Your task to perform on an android device: add a contact Image 0: 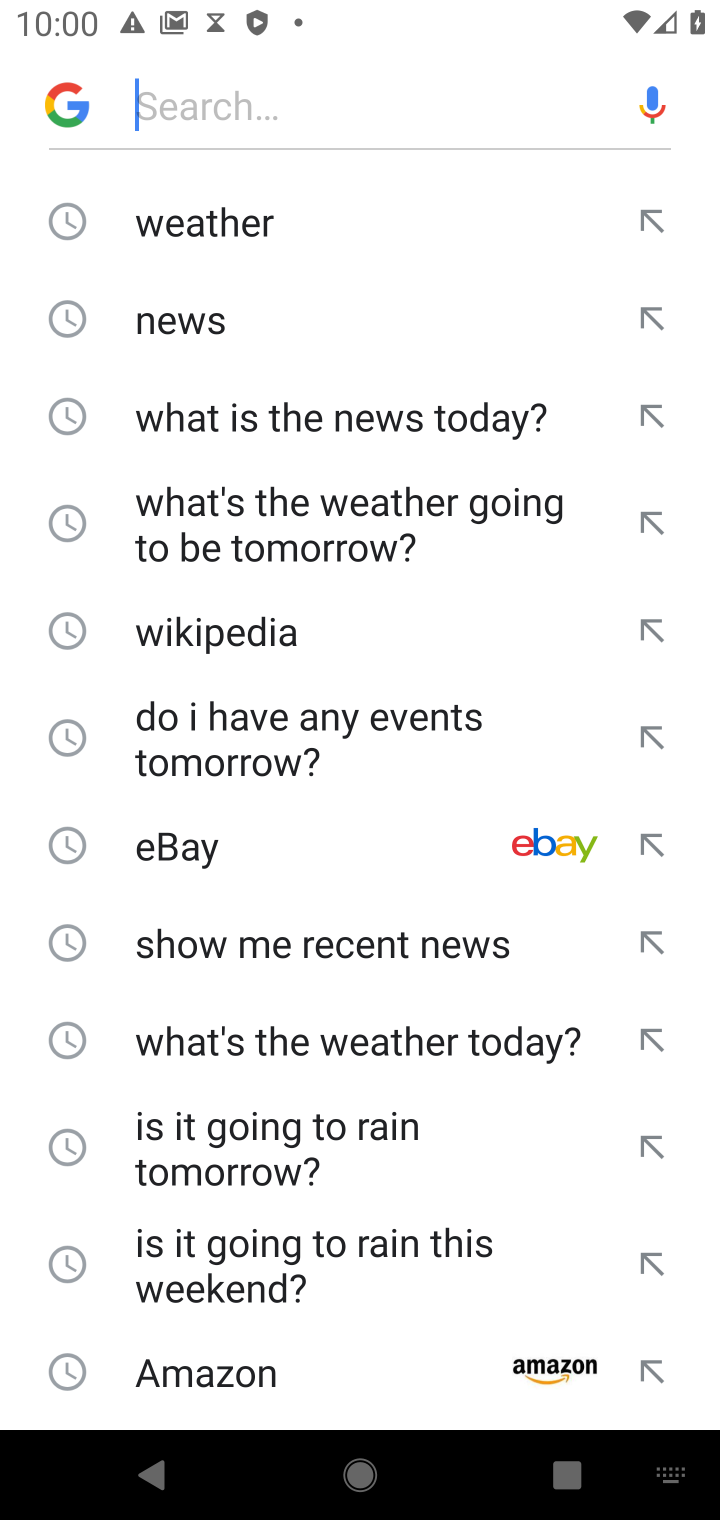
Step 0: press back button
Your task to perform on an android device: add a contact Image 1: 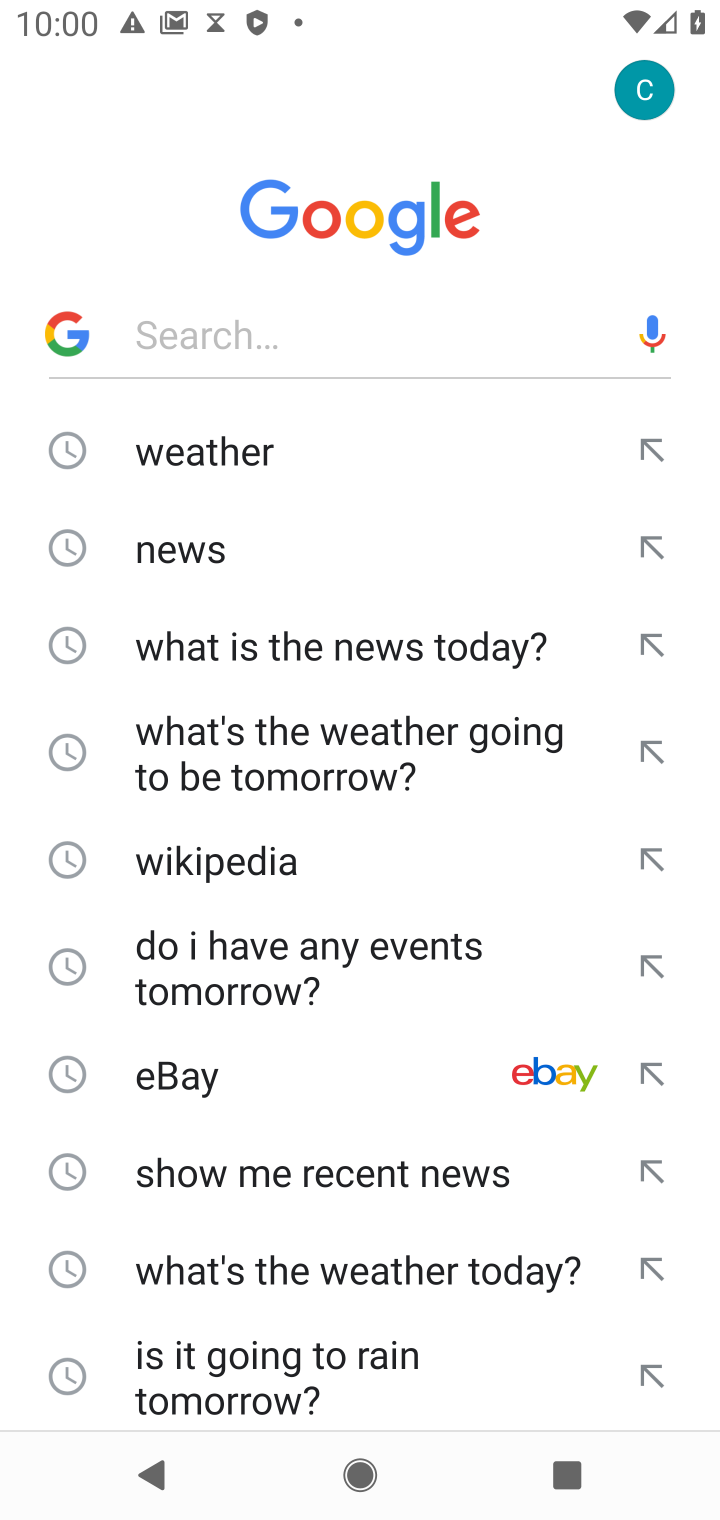
Step 1: press home button
Your task to perform on an android device: add a contact Image 2: 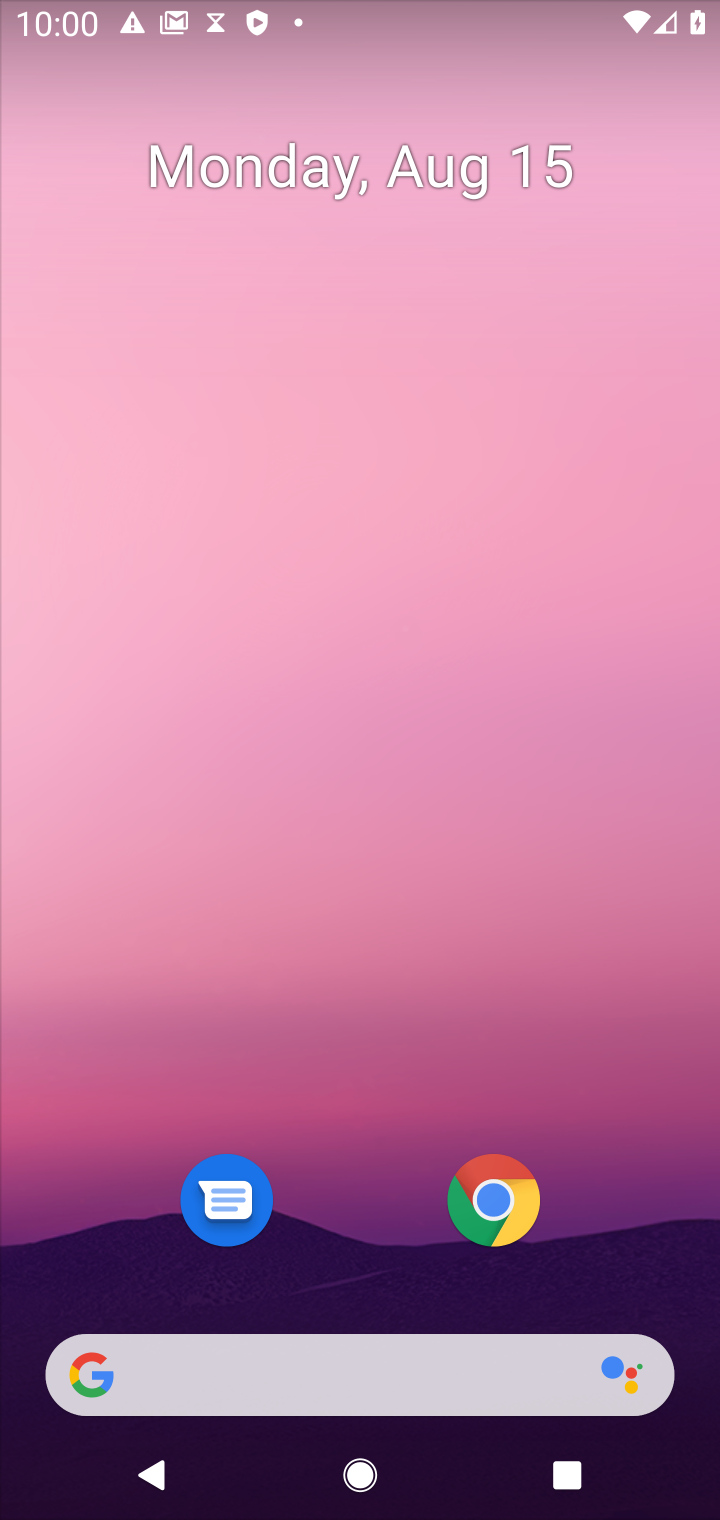
Step 2: drag from (345, 1232) to (345, 364)
Your task to perform on an android device: add a contact Image 3: 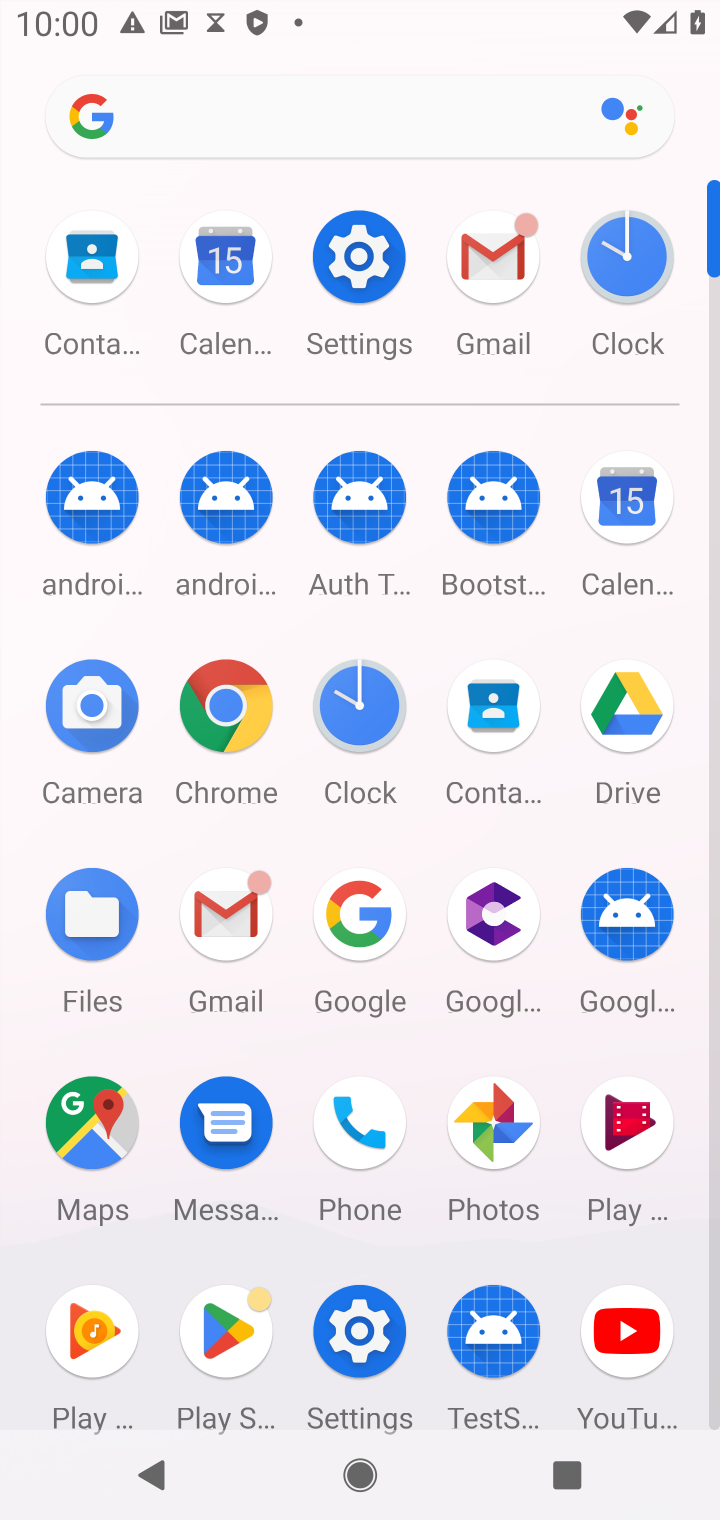
Step 3: click (490, 753)
Your task to perform on an android device: add a contact Image 4: 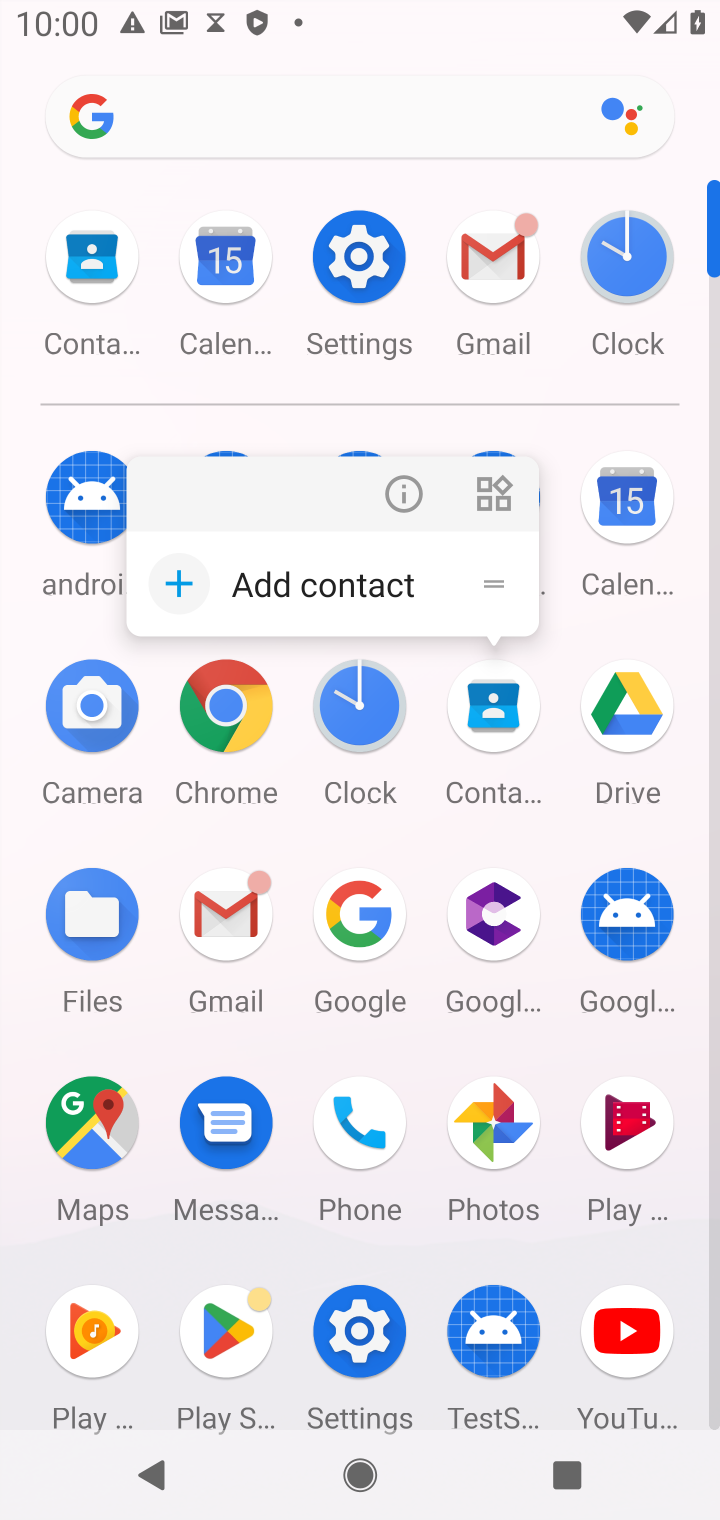
Step 4: click (490, 753)
Your task to perform on an android device: add a contact Image 5: 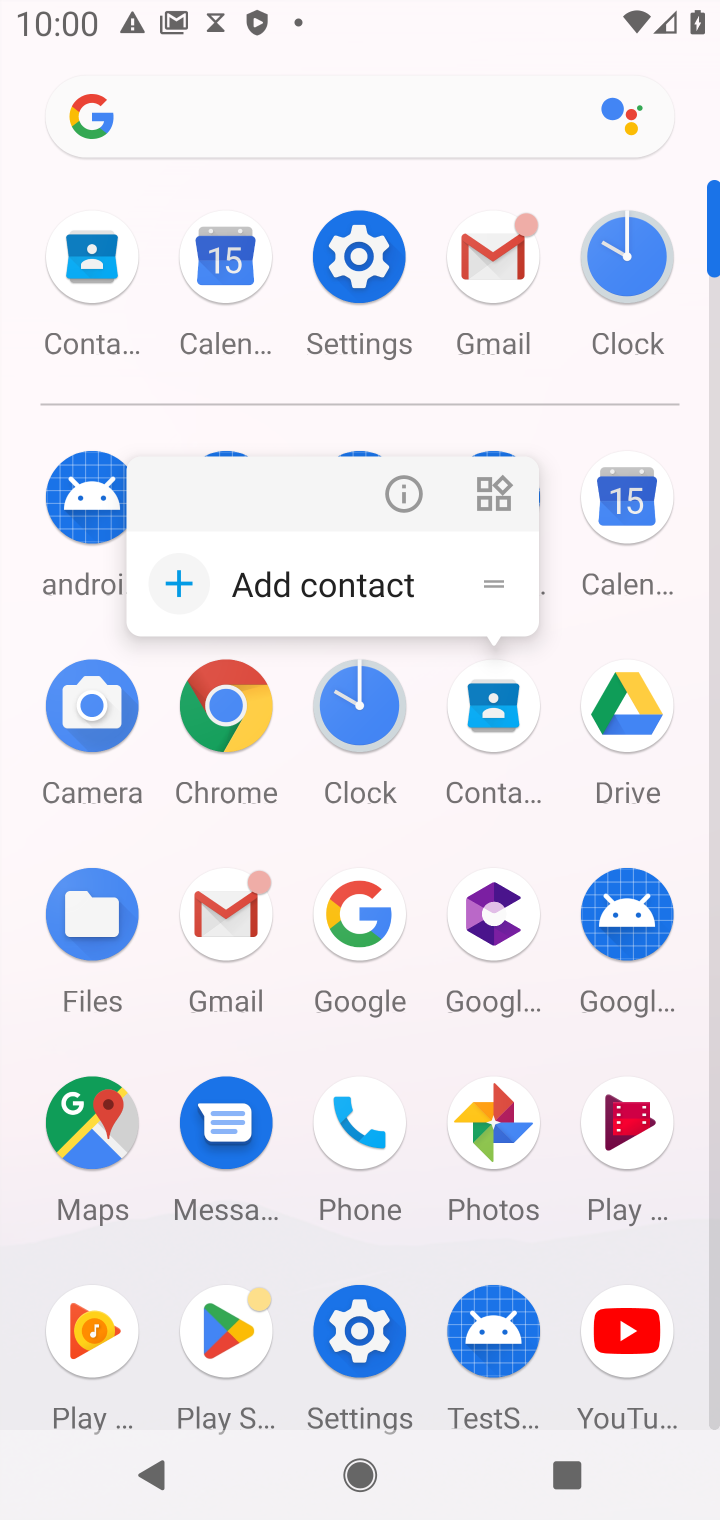
Step 5: click (490, 753)
Your task to perform on an android device: add a contact Image 6: 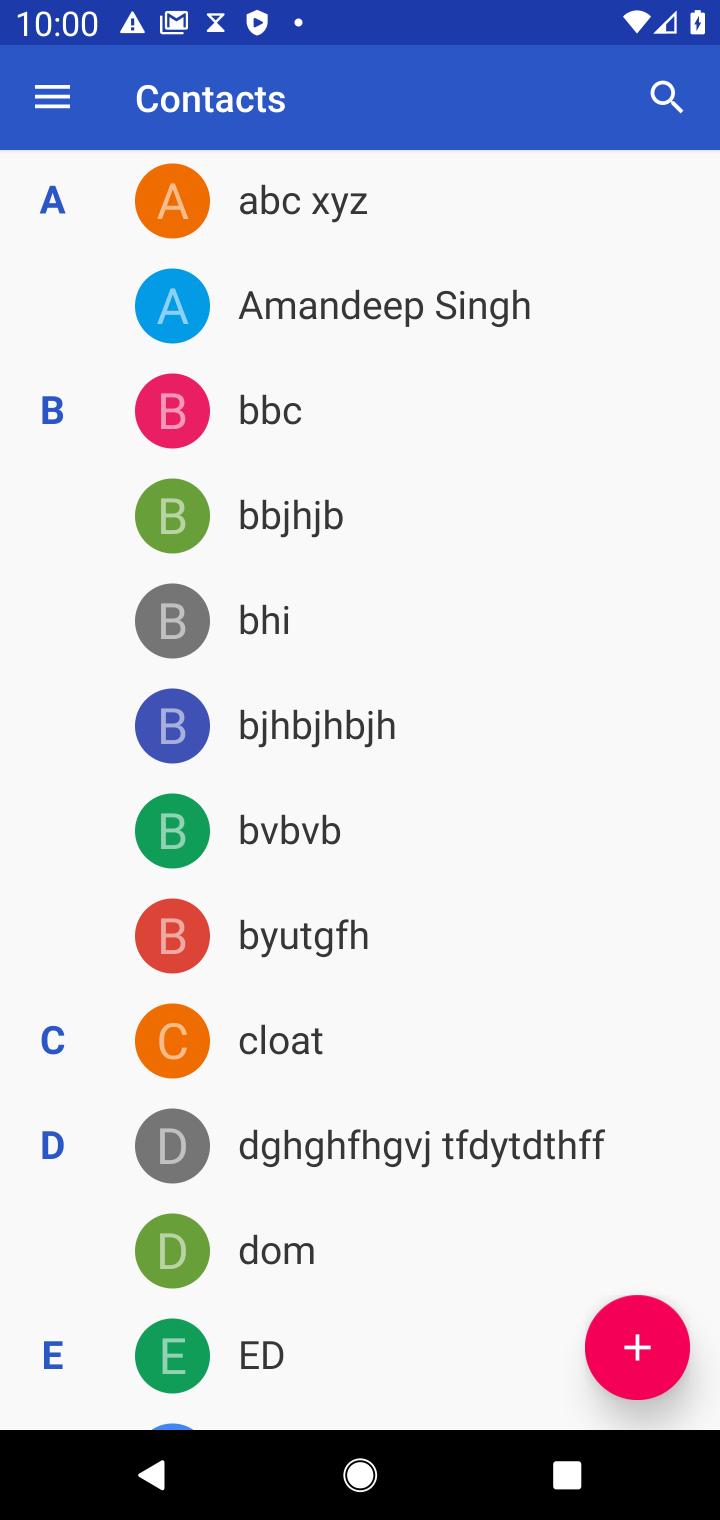
Step 6: click (620, 1356)
Your task to perform on an android device: add a contact Image 7: 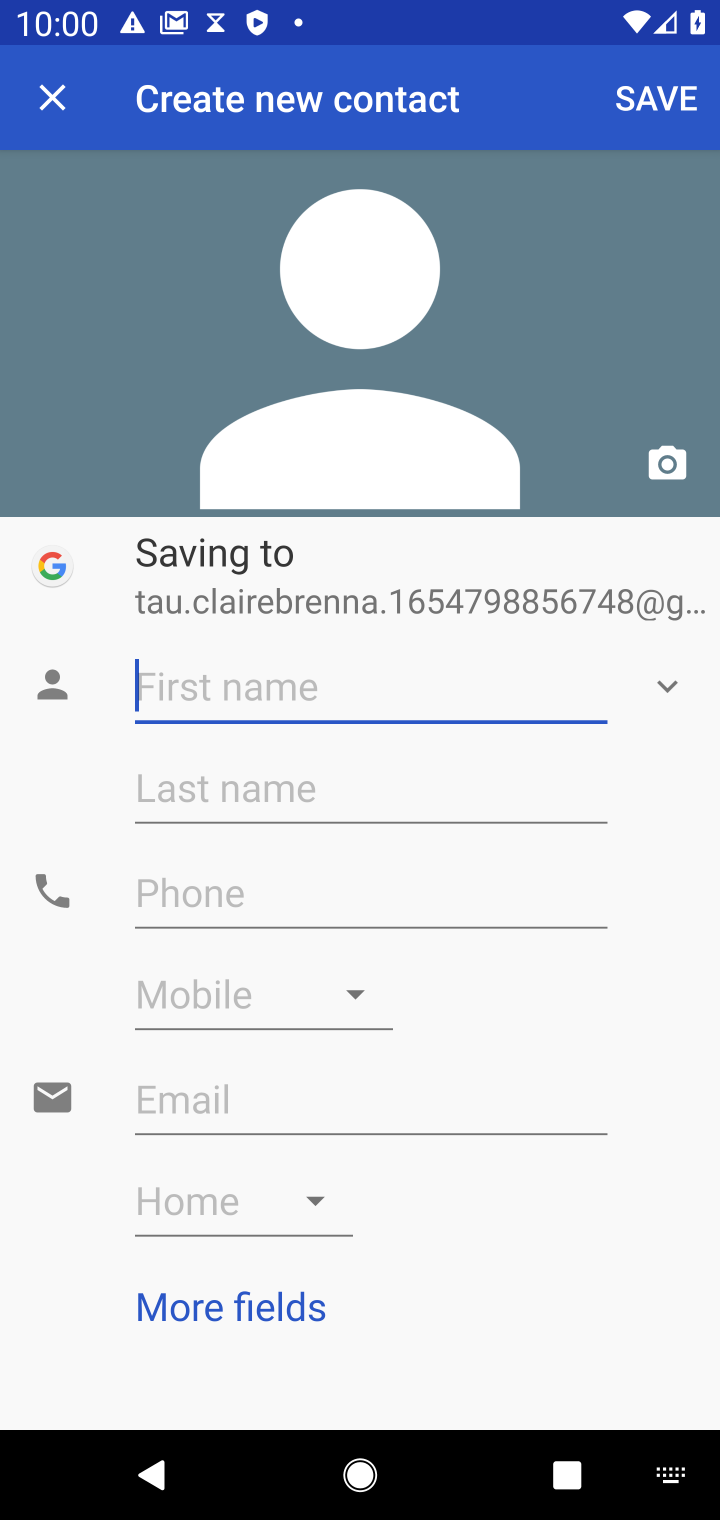
Step 7: type "gfdgff"
Your task to perform on an android device: add a contact Image 8: 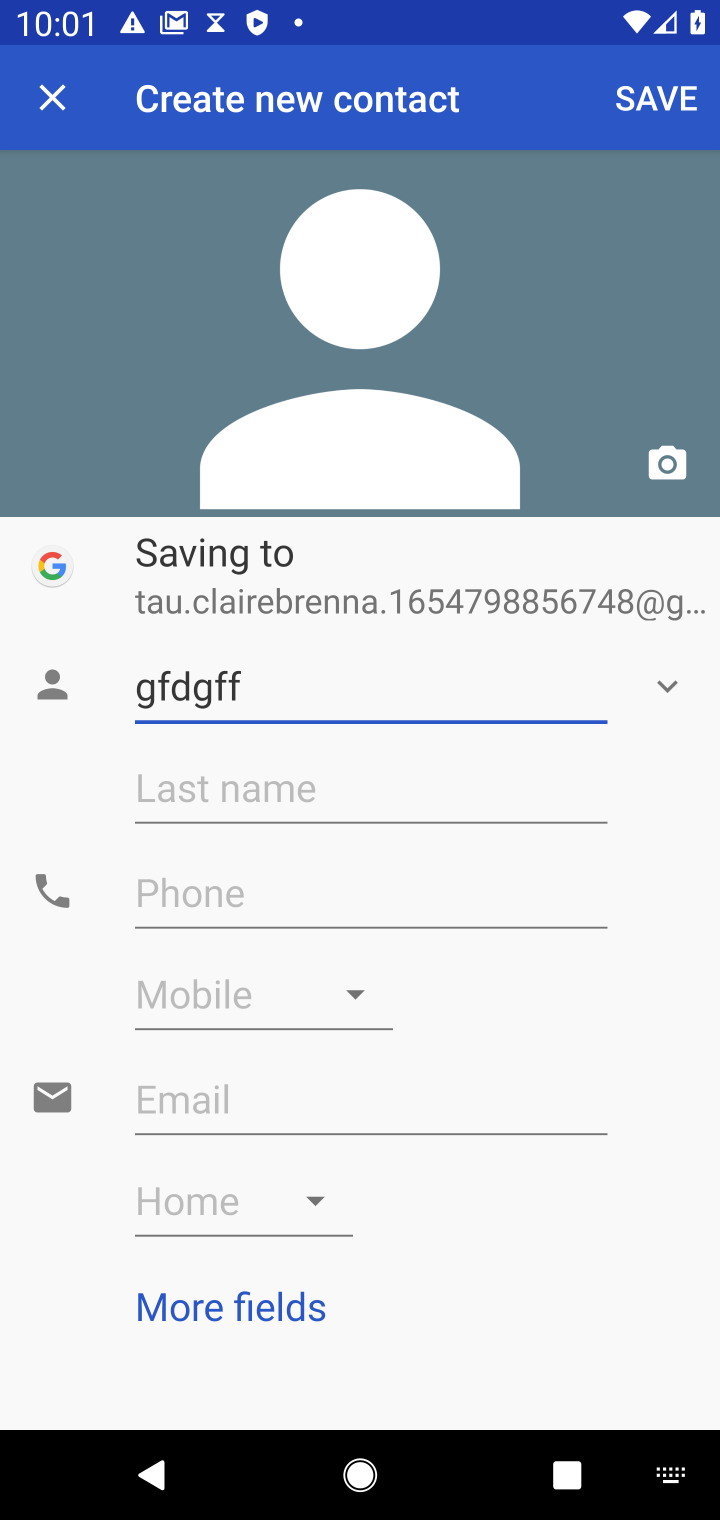
Step 8: click (191, 893)
Your task to perform on an android device: add a contact Image 9: 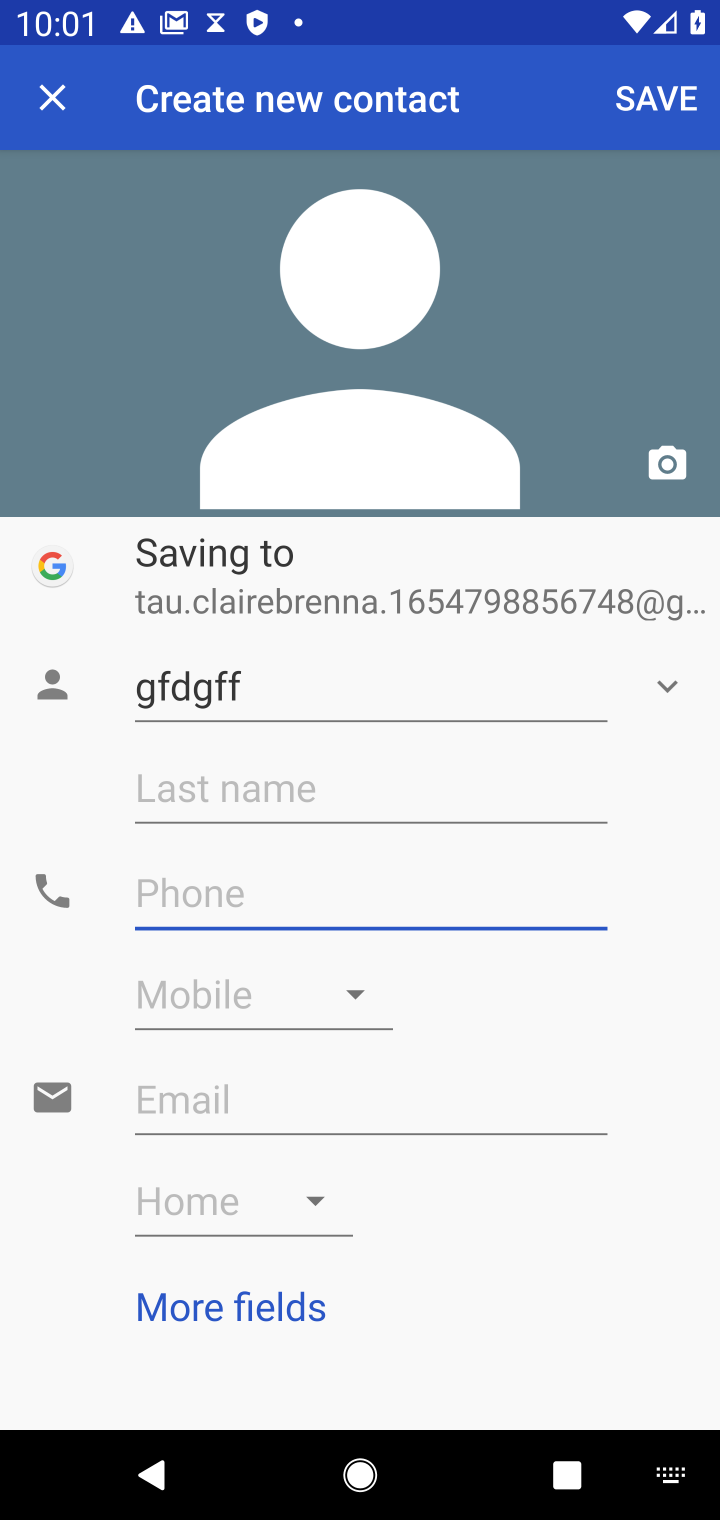
Step 9: type "868657575"
Your task to perform on an android device: add a contact Image 10: 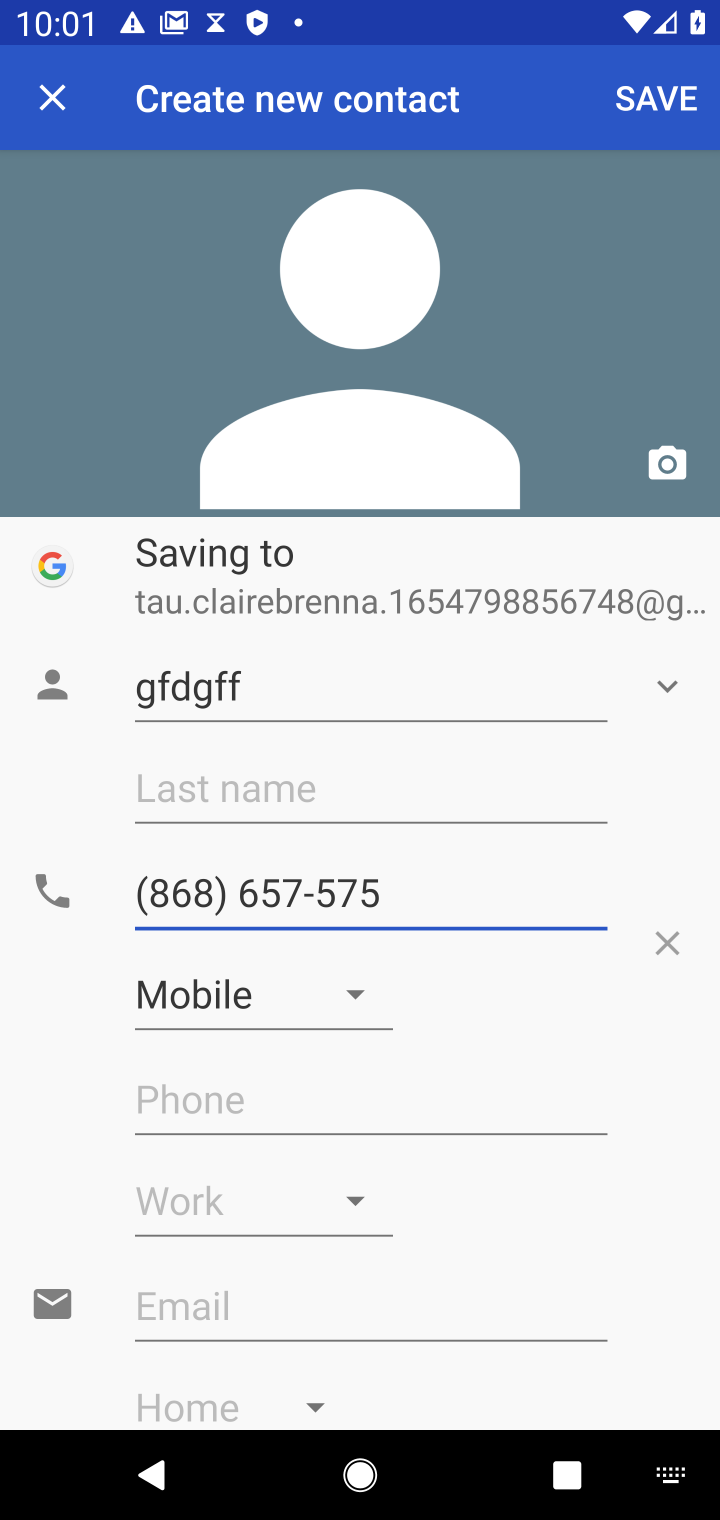
Step 10: click (634, 84)
Your task to perform on an android device: add a contact Image 11: 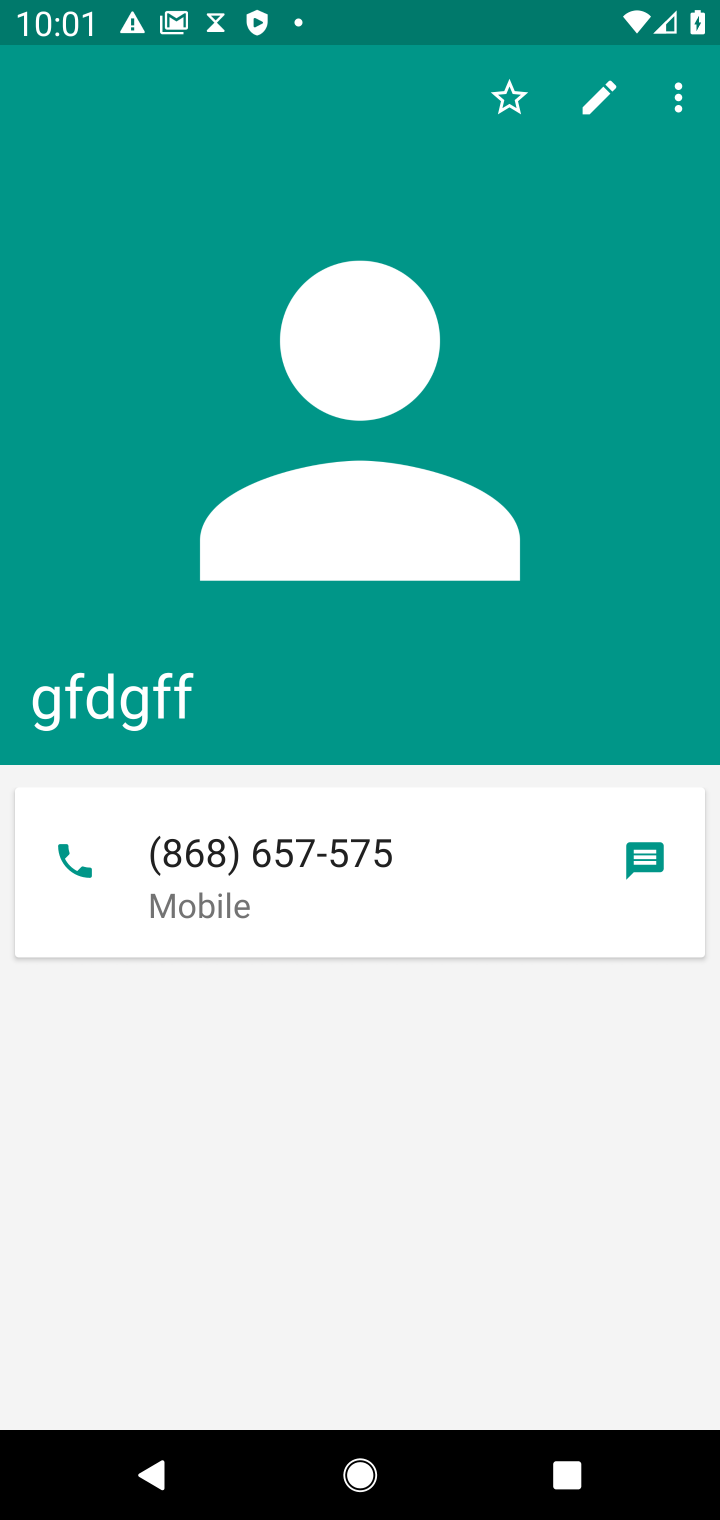
Step 11: task complete